Your task to perform on an android device: stop showing notifications on the lock screen Image 0: 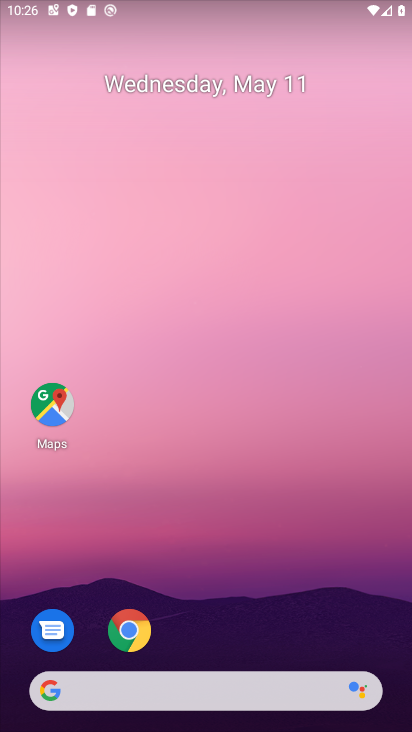
Step 0: drag from (211, 723) to (227, 178)
Your task to perform on an android device: stop showing notifications on the lock screen Image 1: 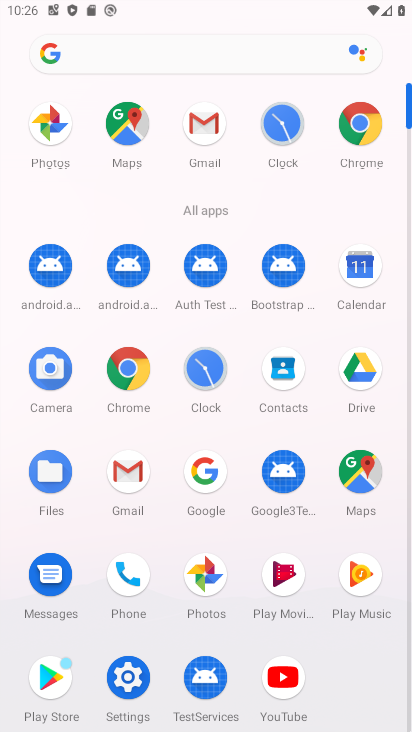
Step 1: click (129, 676)
Your task to perform on an android device: stop showing notifications on the lock screen Image 2: 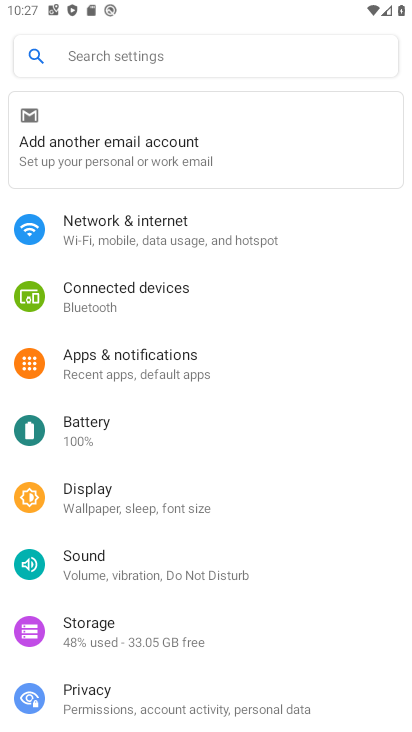
Step 2: click (138, 360)
Your task to perform on an android device: stop showing notifications on the lock screen Image 3: 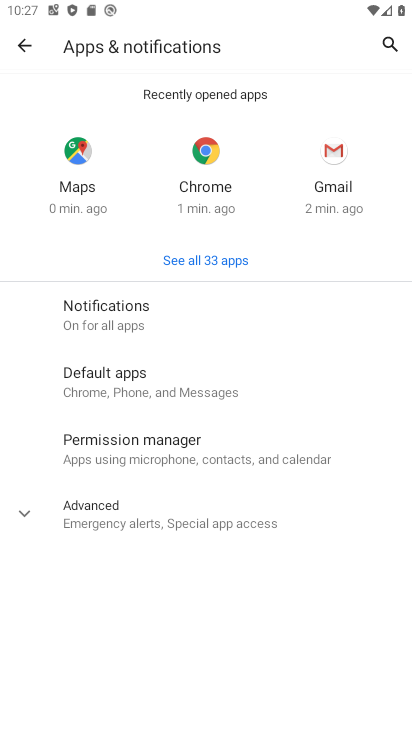
Step 3: click (83, 314)
Your task to perform on an android device: stop showing notifications on the lock screen Image 4: 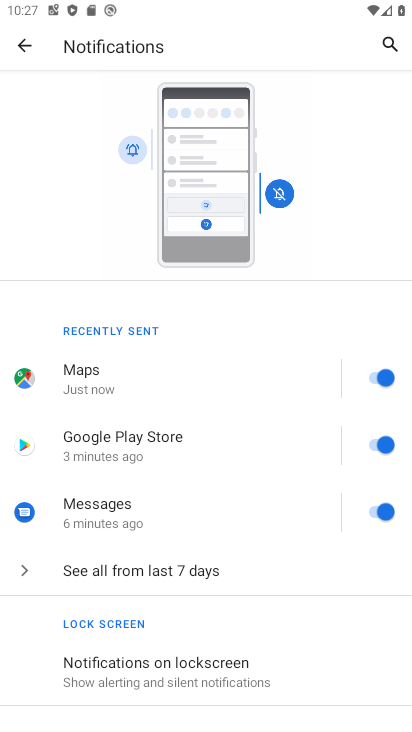
Step 4: drag from (300, 676) to (297, 414)
Your task to perform on an android device: stop showing notifications on the lock screen Image 5: 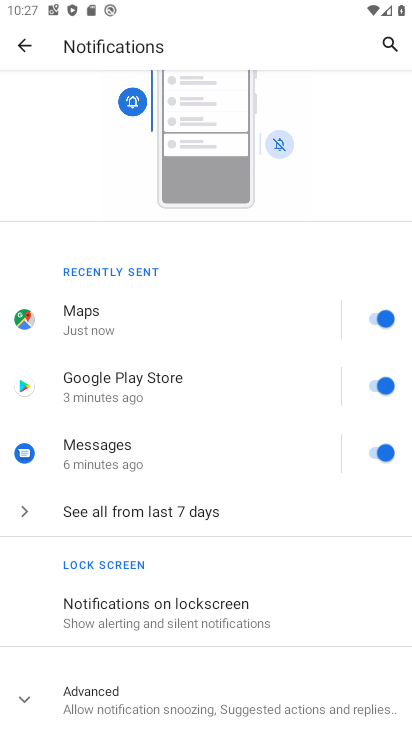
Step 5: click (138, 608)
Your task to perform on an android device: stop showing notifications on the lock screen Image 6: 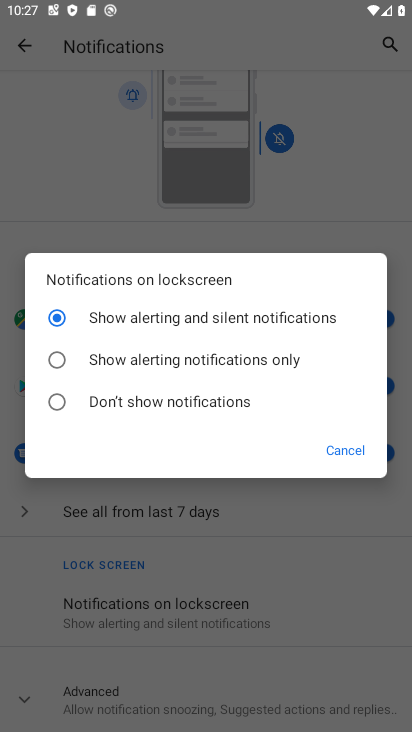
Step 6: click (47, 396)
Your task to perform on an android device: stop showing notifications on the lock screen Image 7: 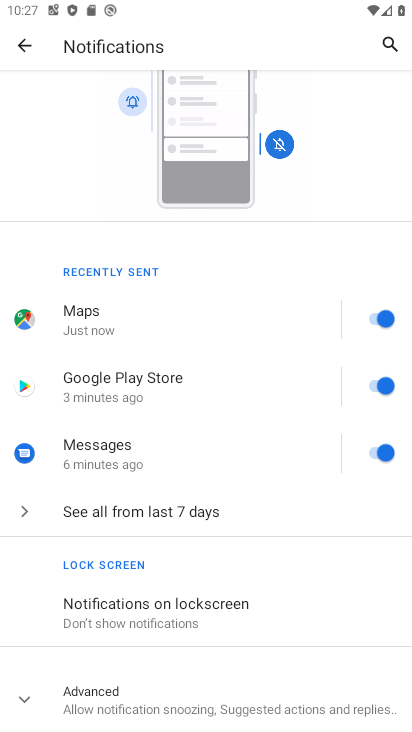
Step 7: task complete